Your task to perform on an android device: turn off notifications in google photos Image 0: 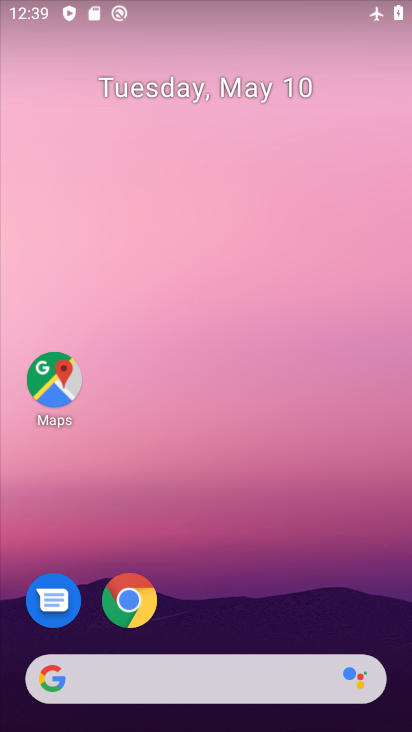
Step 0: drag from (238, 229) to (238, 58)
Your task to perform on an android device: turn off notifications in google photos Image 1: 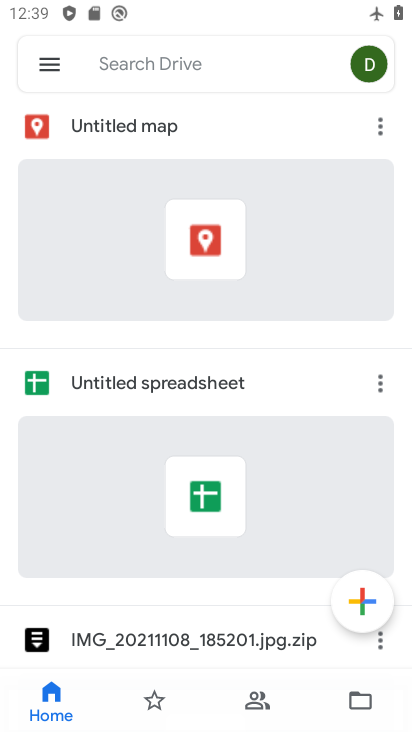
Step 1: press home button
Your task to perform on an android device: turn off notifications in google photos Image 2: 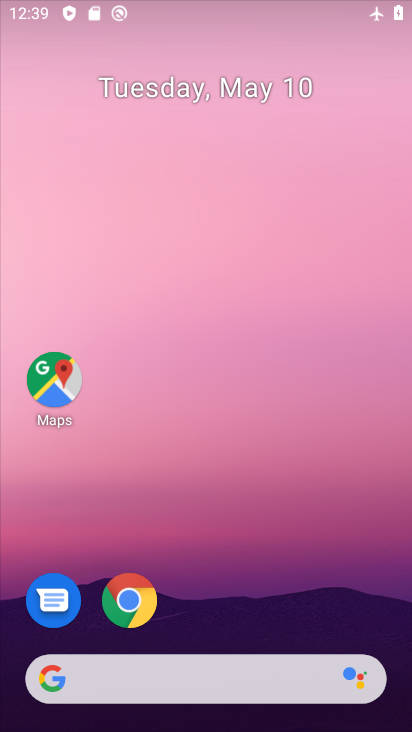
Step 2: drag from (220, 624) to (217, 148)
Your task to perform on an android device: turn off notifications in google photos Image 3: 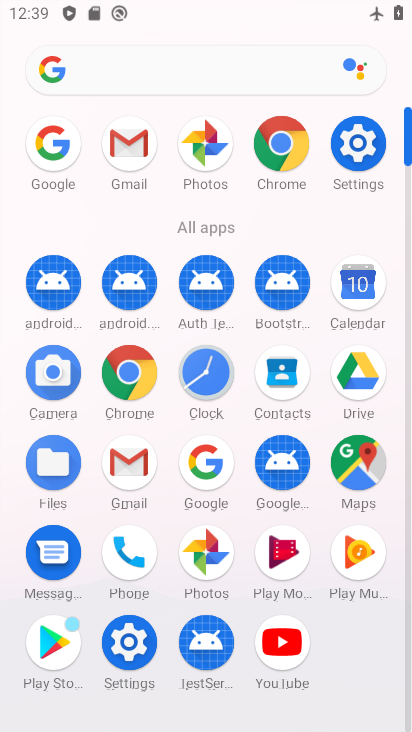
Step 3: click (209, 552)
Your task to perform on an android device: turn off notifications in google photos Image 4: 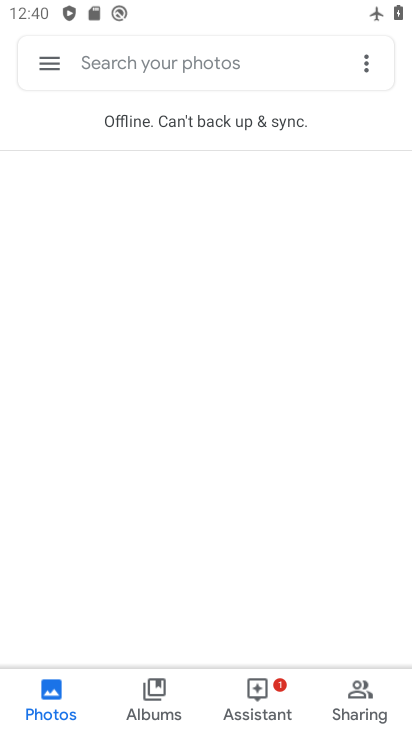
Step 4: click (50, 69)
Your task to perform on an android device: turn off notifications in google photos Image 5: 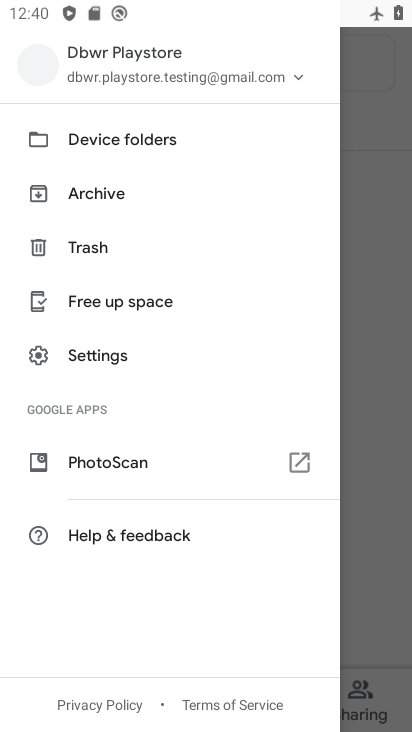
Step 5: click (110, 355)
Your task to perform on an android device: turn off notifications in google photos Image 6: 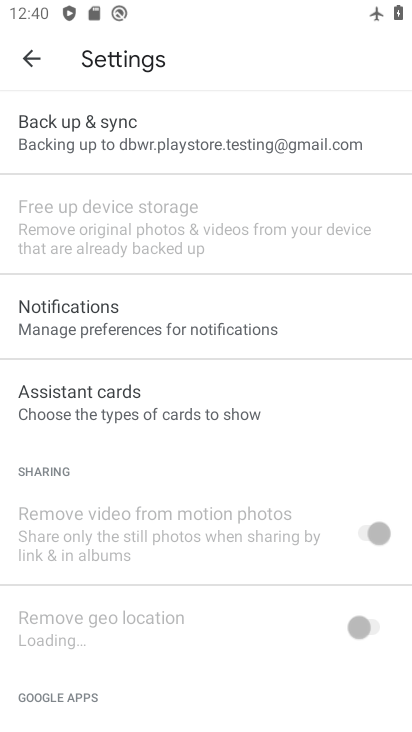
Step 6: click (143, 315)
Your task to perform on an android device: turn off notifications in google photos Image 7: 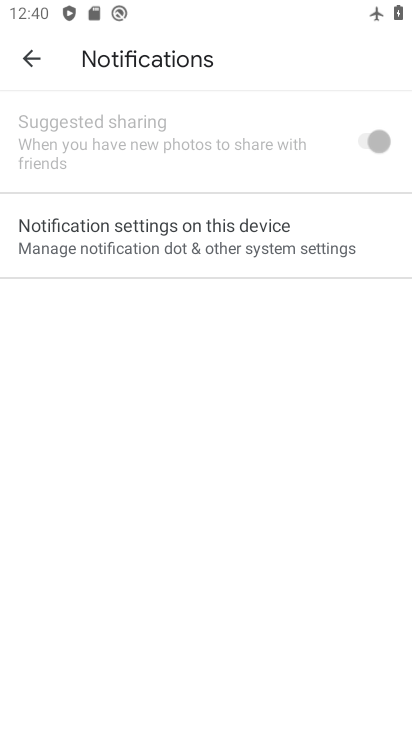
Step 7: click (251, 162)
Your task to perform on an android device: turn off notifications in google photos Image 8: 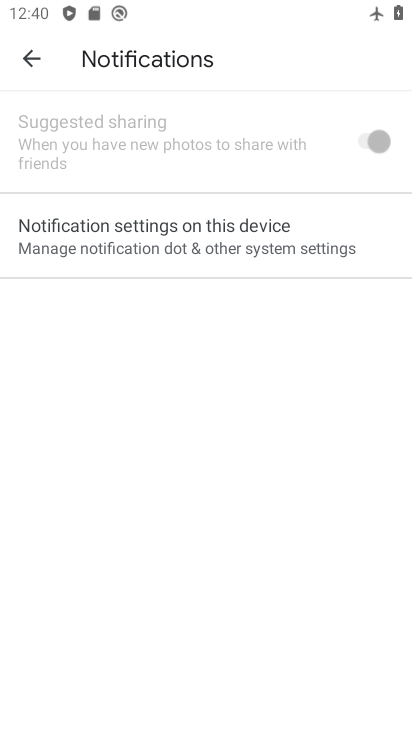
Step 8: click (248, 237)
Your task to perform on an android device: turn off notifications in google photos Image 9: 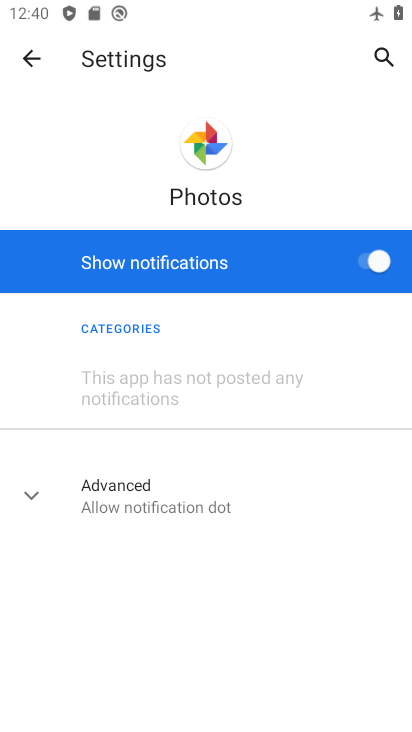
Step 9: click (266, 267)
Your task to perform on an android device: turn off notifications in google photos Image 10: 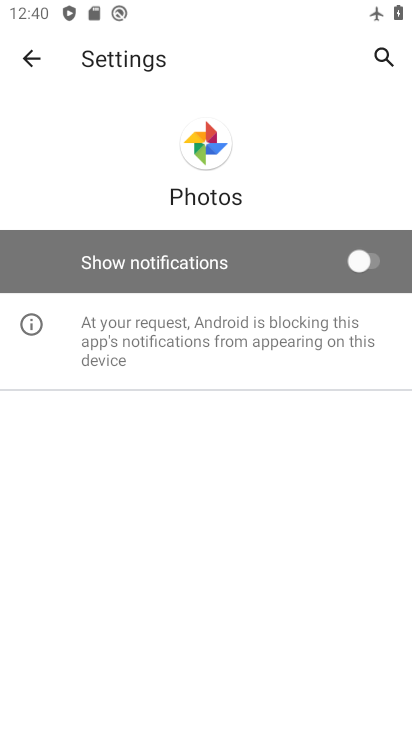
Step 10: task complete